Your task to perform on an android device: turn off data saver in the chrome app Image 0: 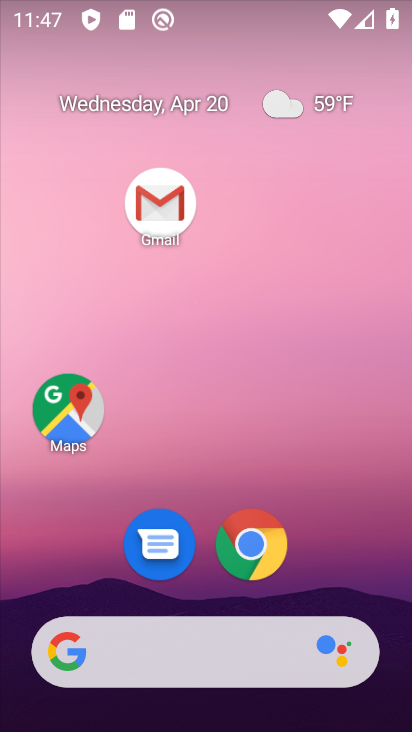
Step 0: click (259, 540)
Your task to perform on an android device: turn off data saver in the chrome app Image 1: 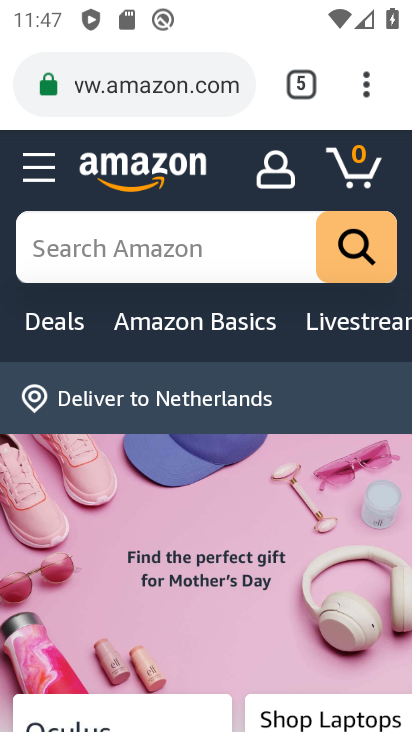
Step 1: click (368, 73)
Your task to perform on an android device: turn off data saver in the chrome app Image 2: 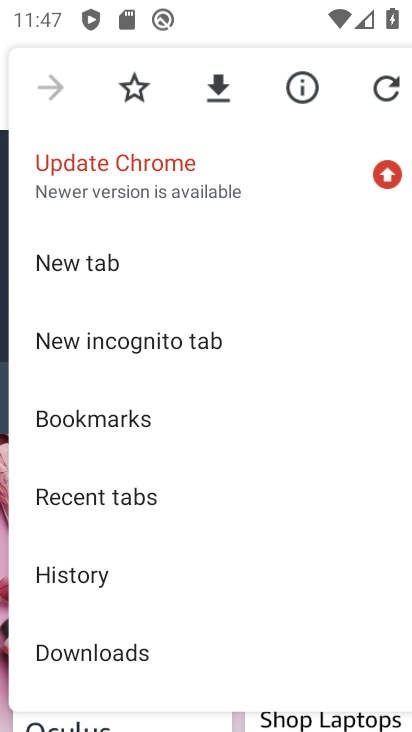
Step 2: drag from (246, 562) to (278, 177)
Your task to perform on an android device: turn off data saver in the chrome app Image 3: 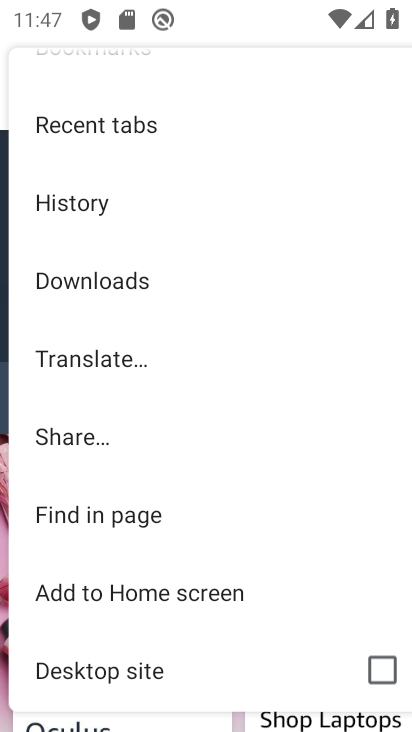
Step 3: drag from (311, 627) to (301, 191)
Your task to perform on an android device: turn off data saver in the chrome app Image 4: 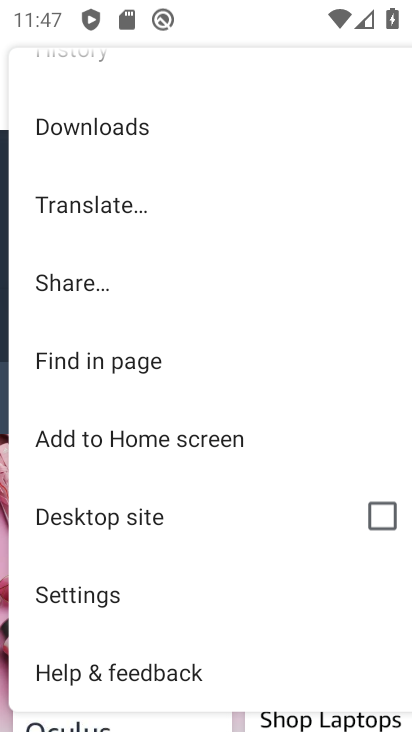
Step 4: click (115, 588)
Your task to perform on an android device: turn off data saver in the chrome app Image 5: 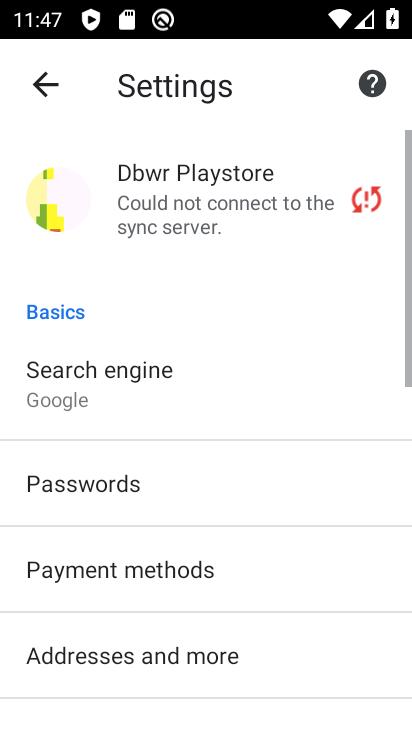
Step 5: drag from (111, 574) to (196, 154)
Your task to perform on an android device: turn off data saver in the chrome app Image 6: 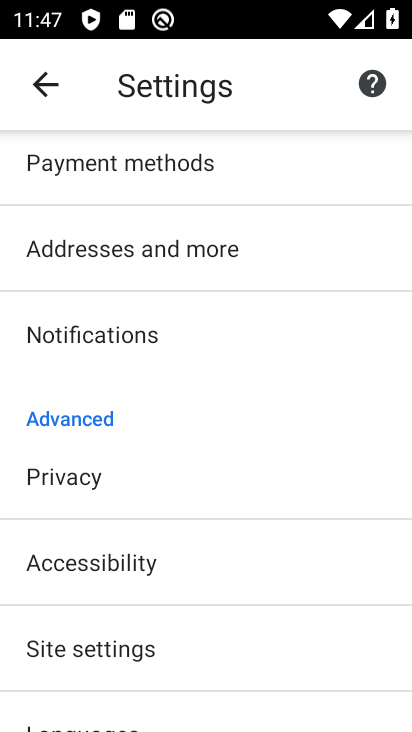
Step 6: drag from (269, 502) to (342, 204)
Your task to perform on an android device: turn off data saver in the chrome app Image 7: 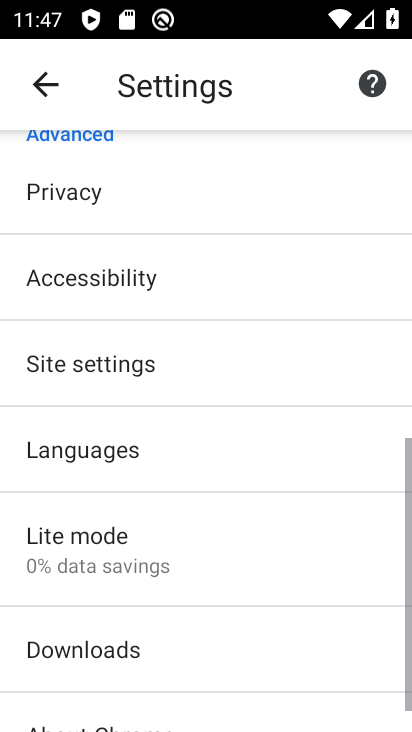
Step 7: click (195, 526)
Your task to perform on an android device: turn off data saver in the chrome app Image 8: 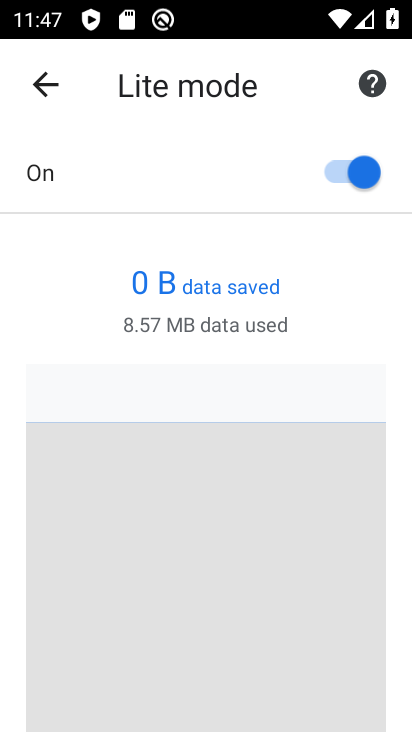
Step 8: click (334, 173)
Your task to perform on an android device: turn off data saver in the chrome app Image 9: 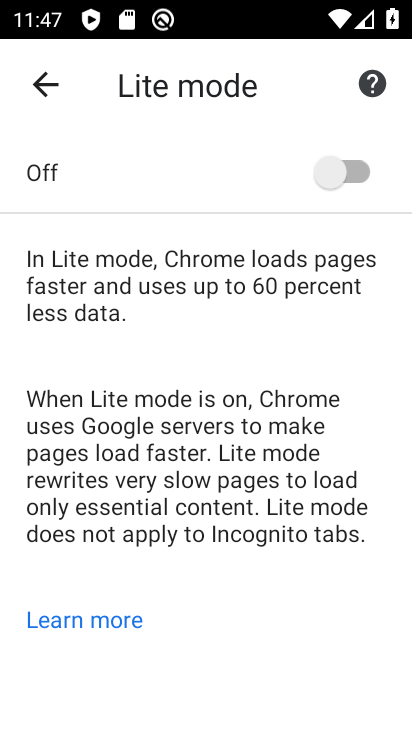
Step 9: task complete